Your task to perform on an android device: Show me popular videos on Youtube Image 0: 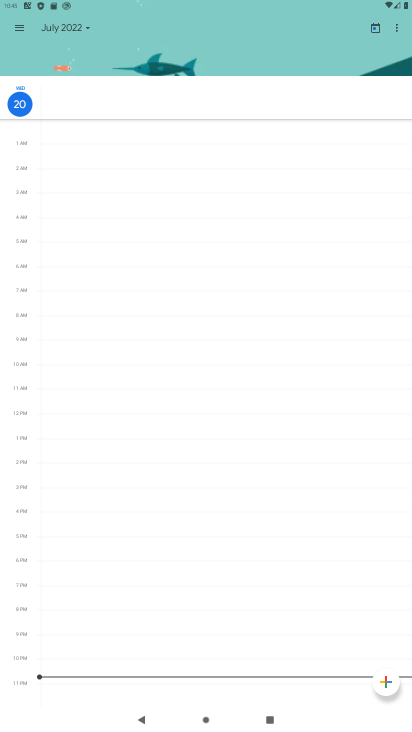
Step 0: press home button
Your task to perform on an android device: Show me popular videos on Youtube Image 1: 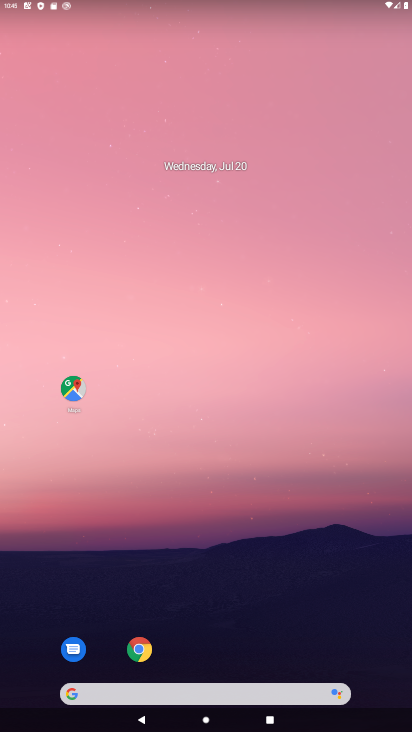
Step 1: drag from (191, 655) to (243, 48)
Your task to perform on an android device: Show me popular videos on Youtube Image 2: 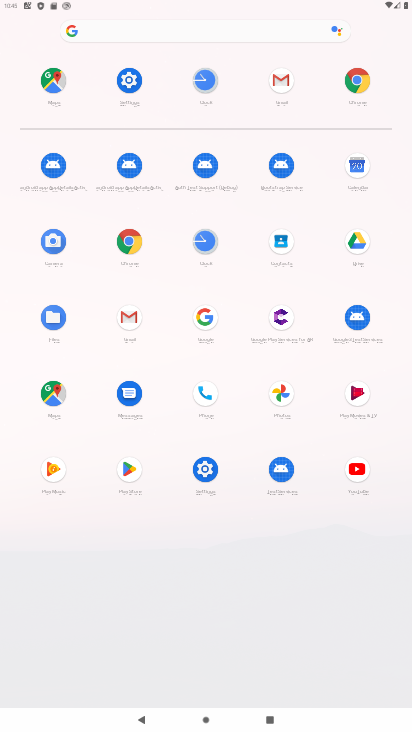
Step 2: click (342, 473)
Your task to perform on an android device: Show me popular videos on Youtube Image 3: 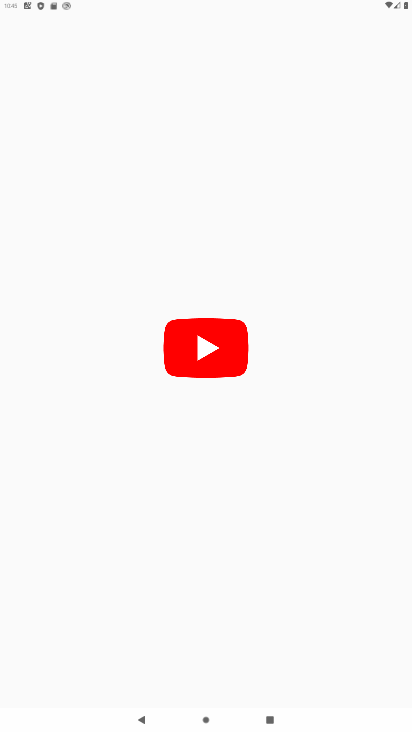
Step 3: task complete